Your task to perform on an android device: check google app version Image 0: 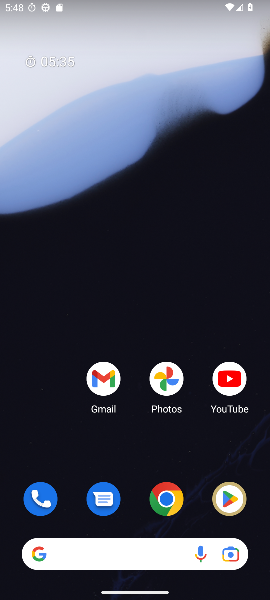
Step 0: drag from (152, 575) to (151, 5)
Your task to perform on an android device: check google app version Image 1: 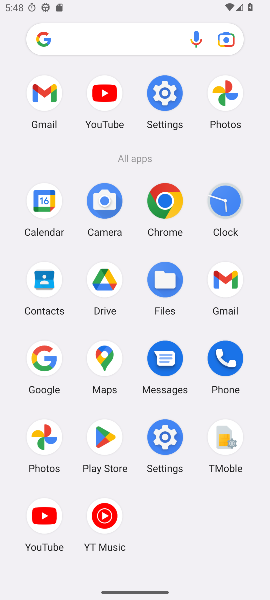
Step 1: click (39, 359)
Your task to perform on an android device: check google app version Image 2: 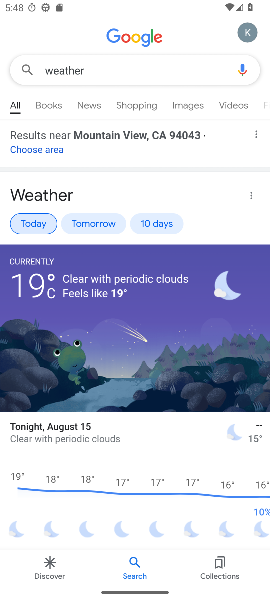
Step 2: click (252, 30)
Your task to perform on an android device: check google app version Image 3: 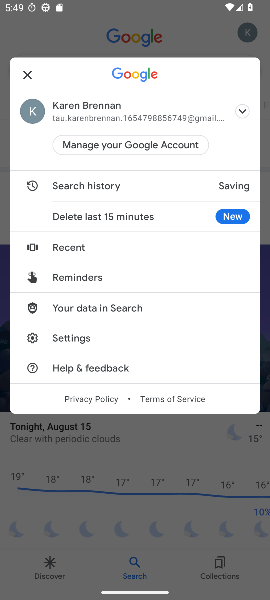
Step 3: click (78, 334)
Your task to perform on an android device: check google app version Image 4: 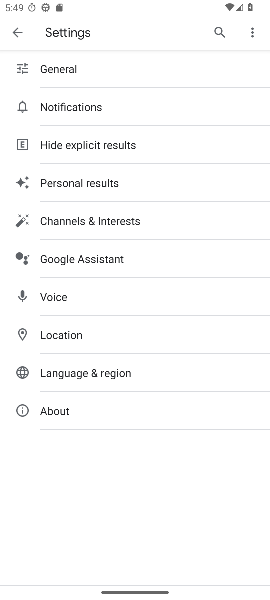
Step 4: click (72, 412)
Your task to perform on an android device: check google app version Image 5: 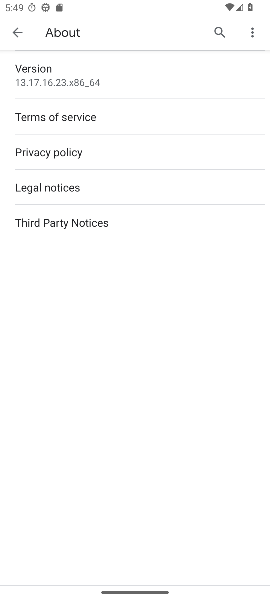
Step 5: click (32, 66)
Your task to perform on an android device: check google app version Image 6: 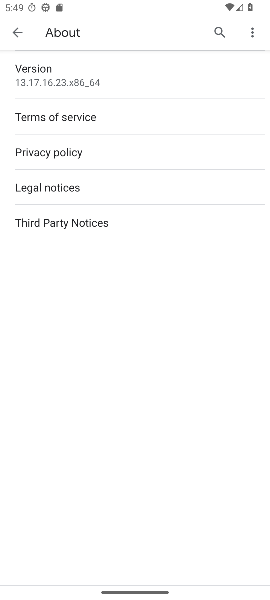
Step 6: click (129, 84)
Your task to perform on an android device: check google app version Image 7: 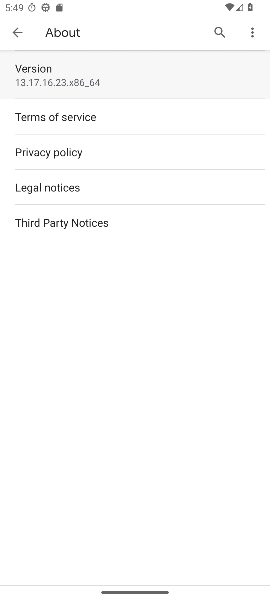
Step 7: task complete